Your task to perform on an android device: Open battery settings Image 0: 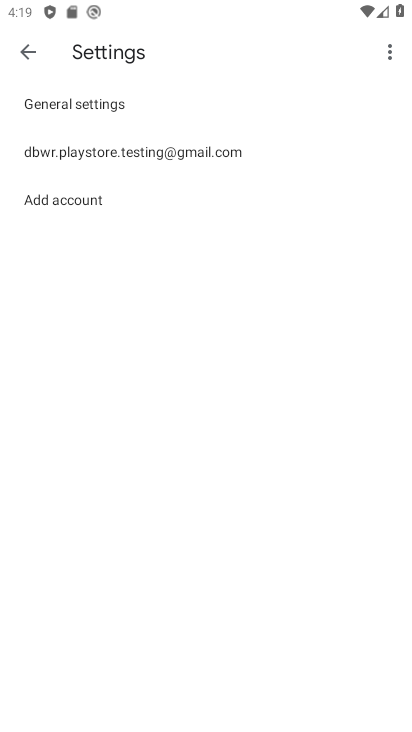
Step 0: press home button
Your task to perform on an android device: Open battery settings Image 1: 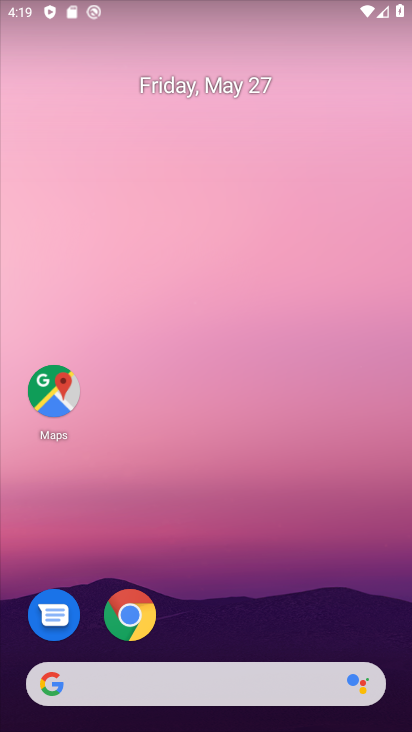
Step 1: drag from (300, 573) to (166, 29)
Your task to perform on an android device: Open battery settings Image 2: 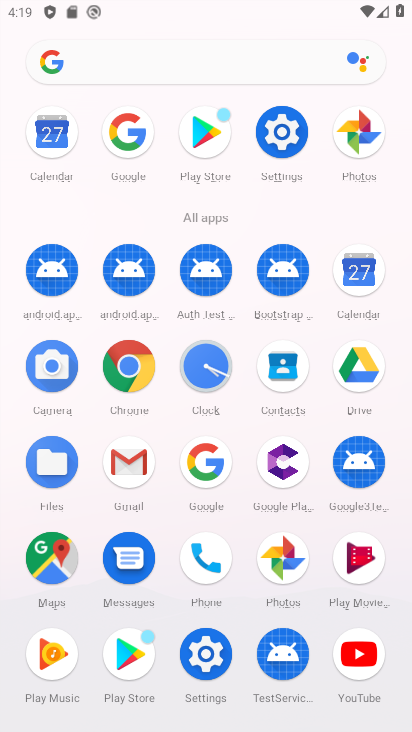
Step 2: click (280, 146)
Your task to perform on an android device: Open battery settings Image 3: 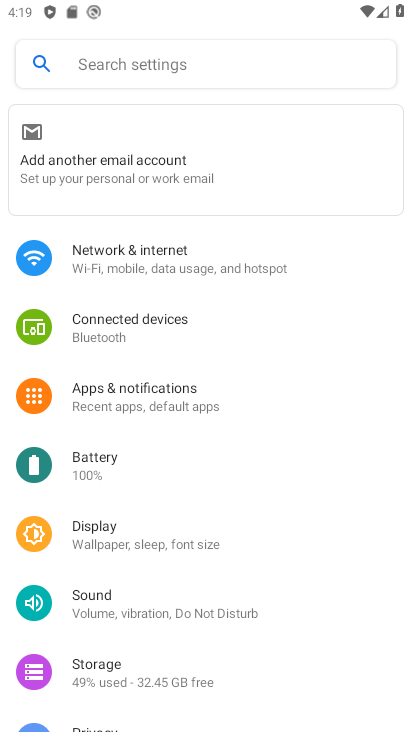
Step 3: click (135, 471)
Your task to perform on an android device: Open battery settings Image 4: 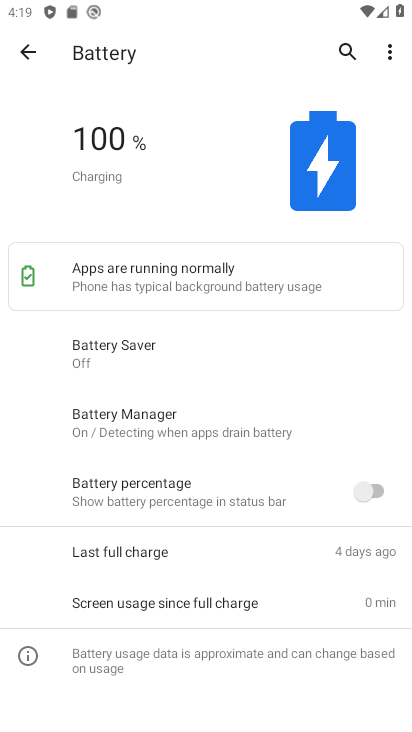
Step 4: task complete